Your task to perform on an android device: turn on the 12-hour format for clock Image 0: 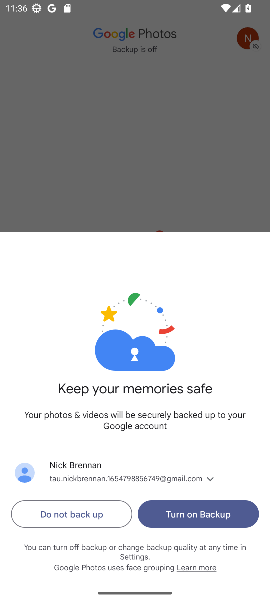
Step 0: press home button
Your task to perform on an android device: turn on the 12-hour format for clock Image 1: 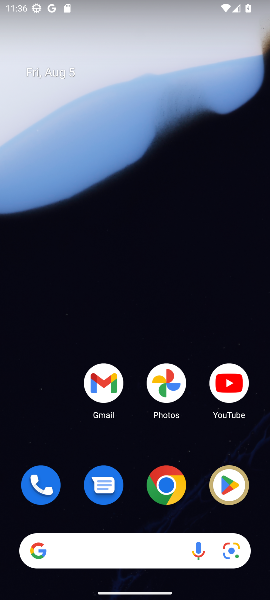
Step 1: drag from (131, 441) to (100, 16)
Your task to perform on an android device: turn on the 12-hour format for clock Image 2: 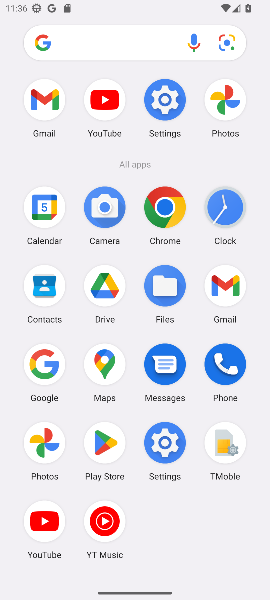
Step 2: click (226, 214)
Your task to perform on an android device: turn on the 12-hour format for clock Image 3: 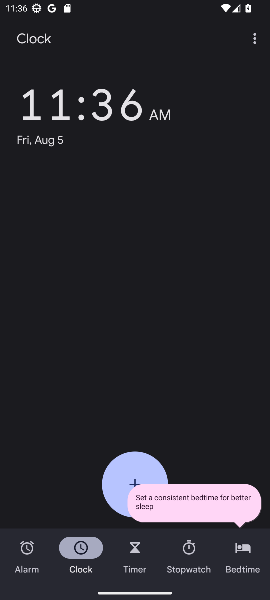
Step 3: click (254, 36)
Your task to perform on an android device: turn on the 12-hour format for clock Image 4: 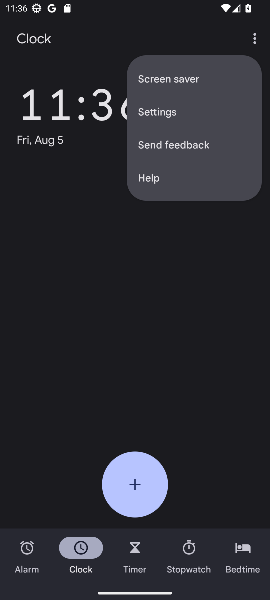
Step 4: click (167, 107)
Your task to perform on an android device: turn on the 12-hour format for clock Image 5: 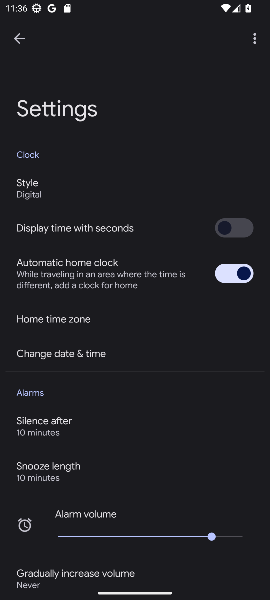
Step 5: click (96, 350)
Your task to perform on an android device: turn on the 12-hour format for clock Image 6: 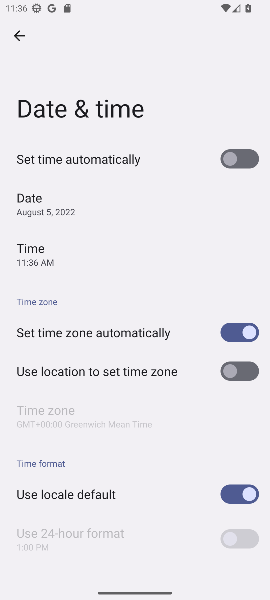
Step 6: task complete